Your task to perform on an android device: turn on location history Image 0: 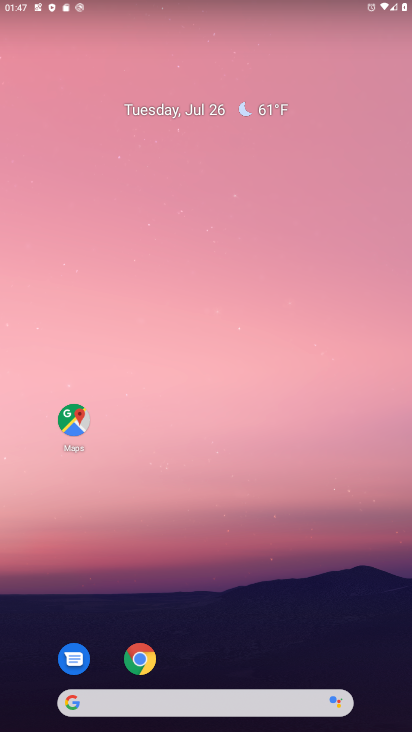
Step 0: click (255, 23)
Your task to perform on an android device: turn on location history Image 1: 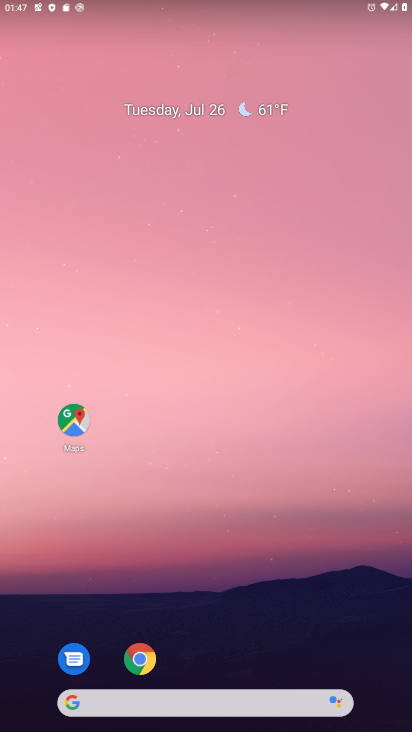
Step 1: drag from (300, 652) to (231, 84)
Your task to perform on an android device: turn on location history Image 2: 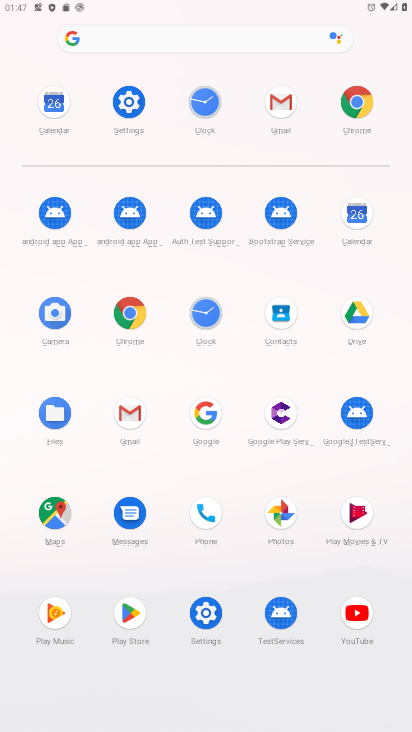
Step 2: click (128, 96)
Your task to perform on an android device: turn on location history Image 3: 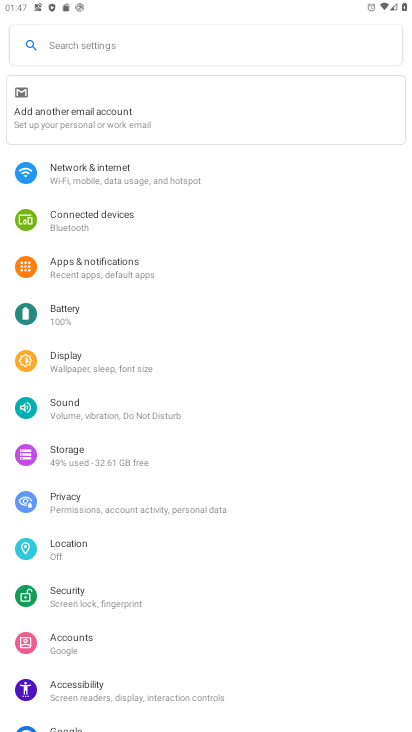
Step 3: click (91, 545)
Your task to perform on an android device: turn on location history Image 4: 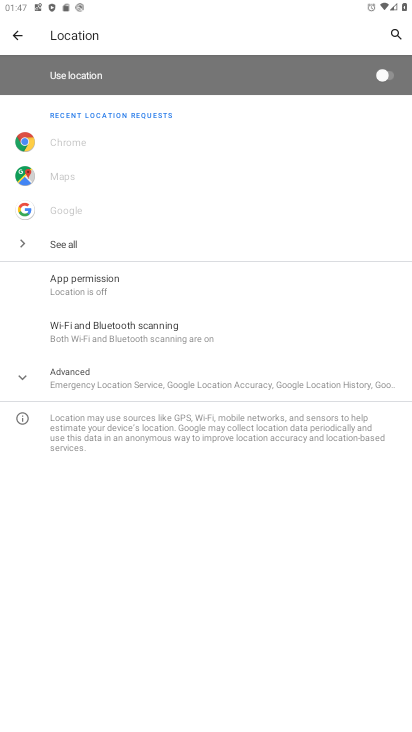
Step 4: click (92, 373)
Your task to perform on an android device: turn on location history Image 5: 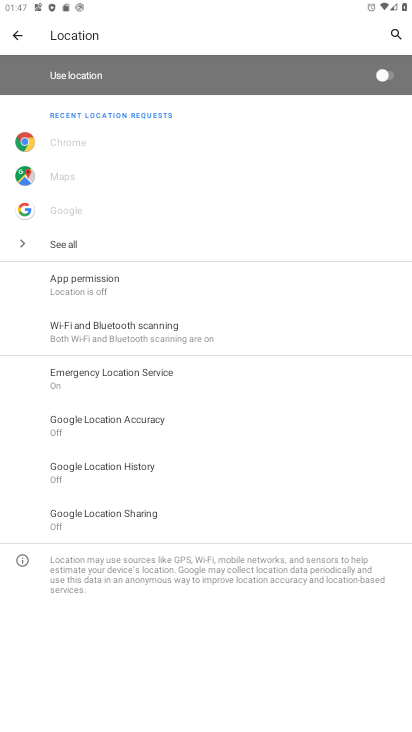
Step 5: click (143, 469)
Your task to perform on an android device: turn on location history Image 6: 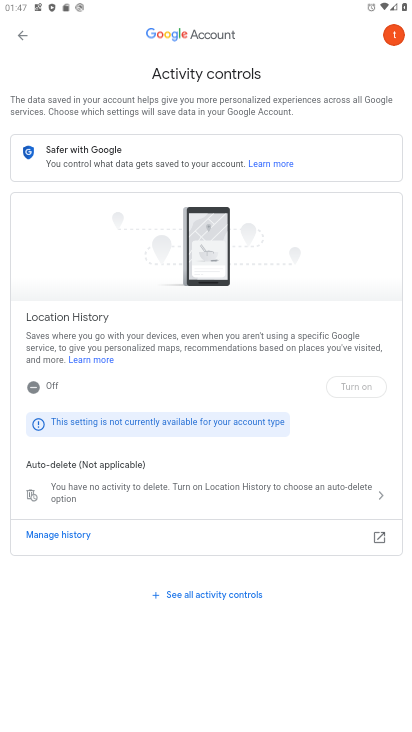
Step 6: click (338, 377)
Your task to perform on an android device: turn on location history Image 7: 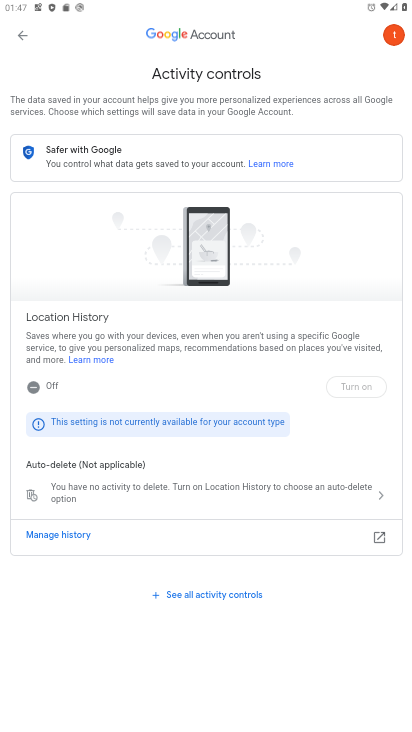
Step 7: task complete